Your task to perform on an android device: open a bookmark in the chrome app Image 0: 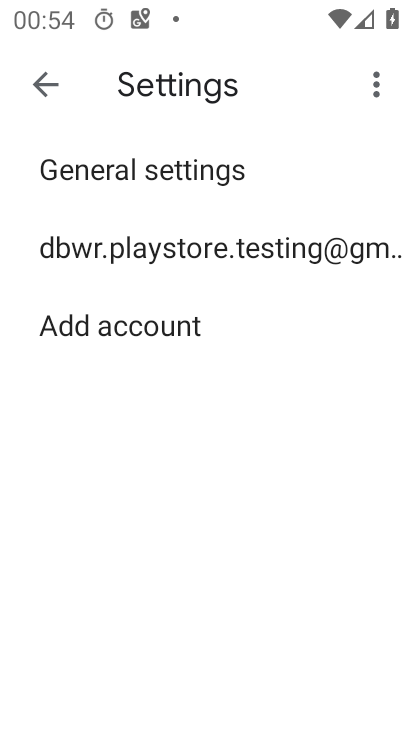
Step 0: press home button
Your task to perform on an android device: open a bookmark in the chrome app Image 1: 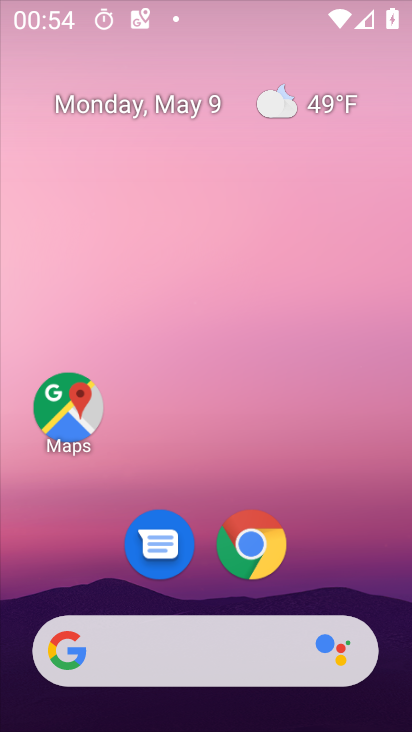
Step 1: drag from (291, 672) to (408, 401)
Your task to perform on an android device: open a bookmark in the chrome app Image 2: 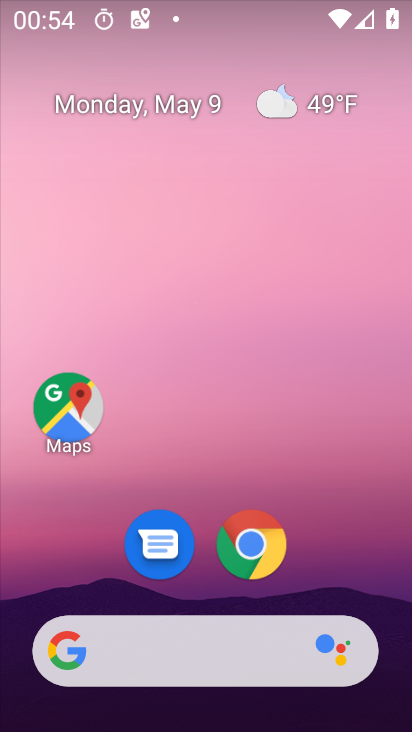
Step 2: click (262, 402)
Your task to perform on an android device: open a bookmark in the chrome app Image 3: 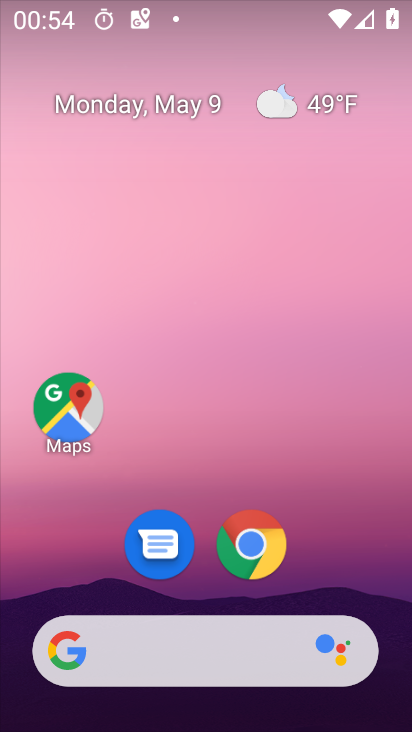
Step 3: drag from (261, 623) to (286, 40)
Your task to perform on an android device: open a bookmark in the chrome app Image 4: 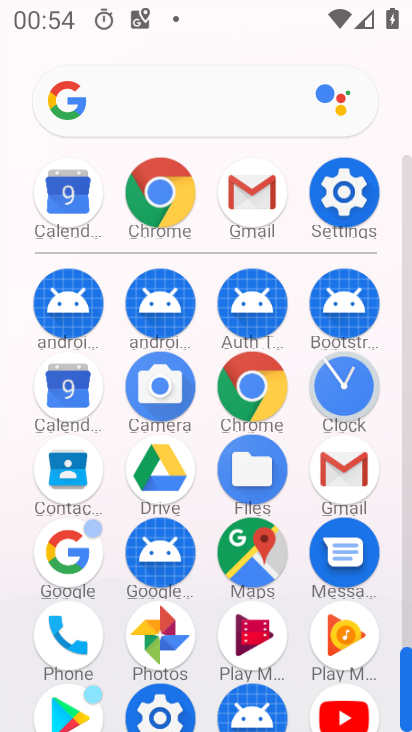
Step 4: click (257, 375)
Your task to perform on an android device: open a bookmark in the chrome app Image 5: 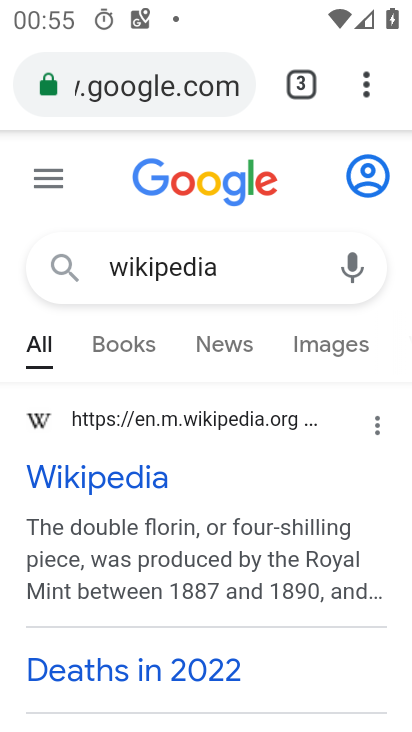
Step 5: task complete